Your task to perform on an android device: Check the weather Image 0: 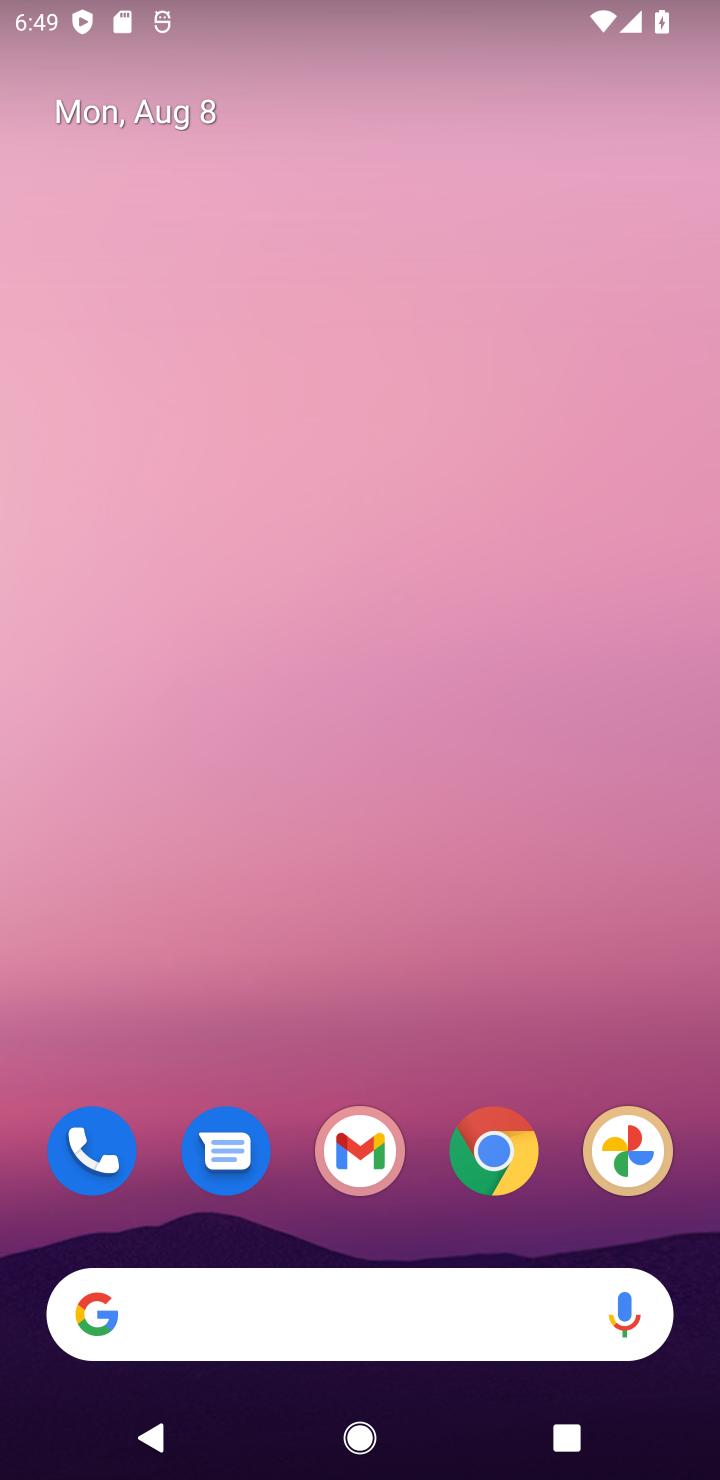
Step 0: click (312, 1304)
Your task to perform on an android device: Check the weather Image 1: 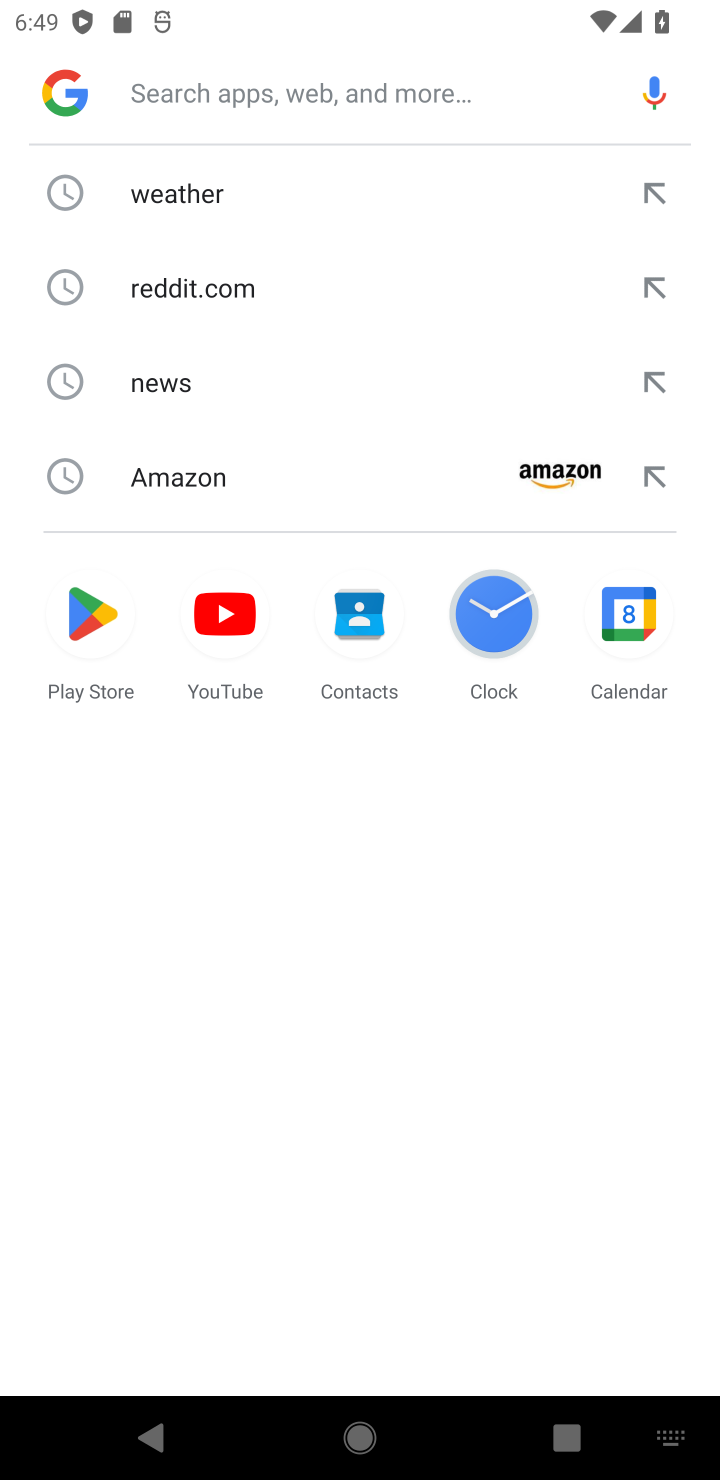
Step 1: click (315, 79)
Your task to perform on an android device: Check the weather Image 2: 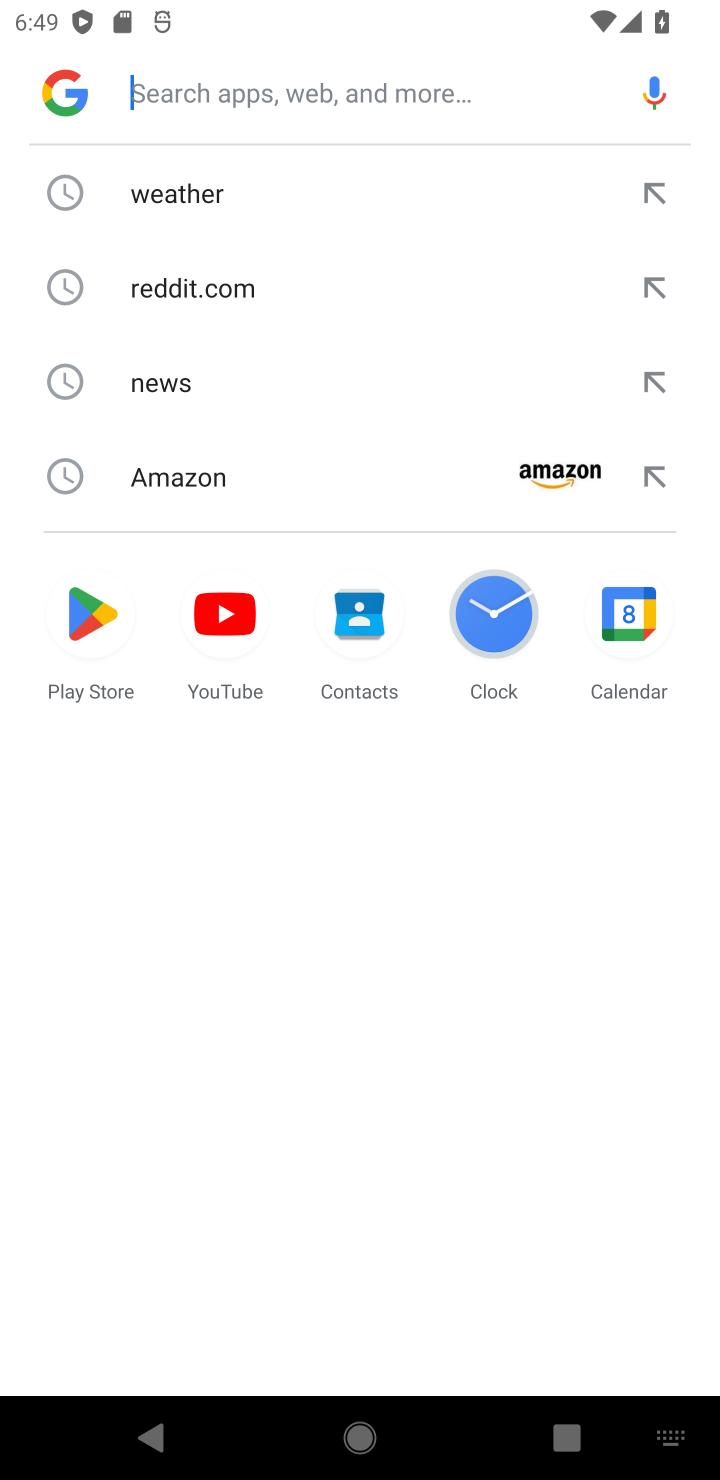
Step 2: type "weather"
Your task to perform on an android device: Check the weather Image 3: 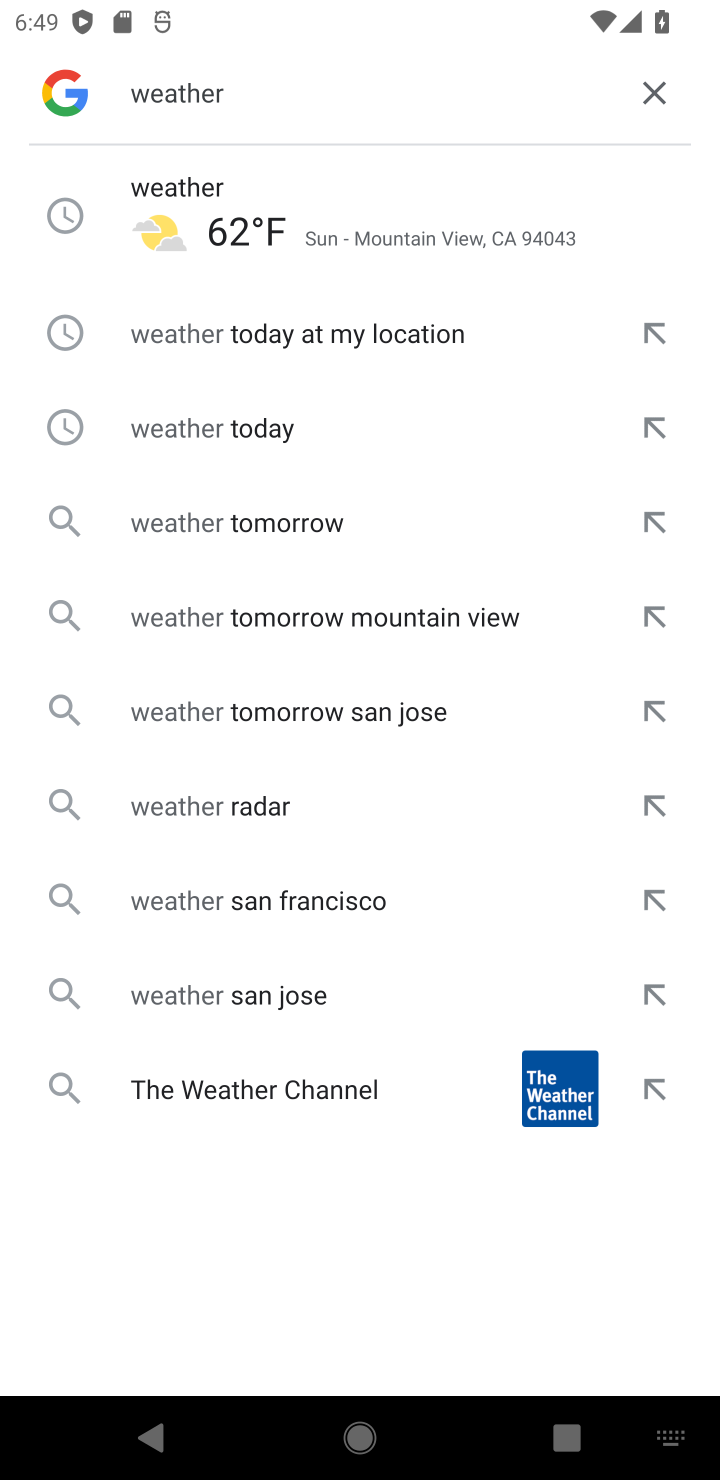
Step 3: click (369, 205)
Your task to perform on an android device: Check the weather Image 4: 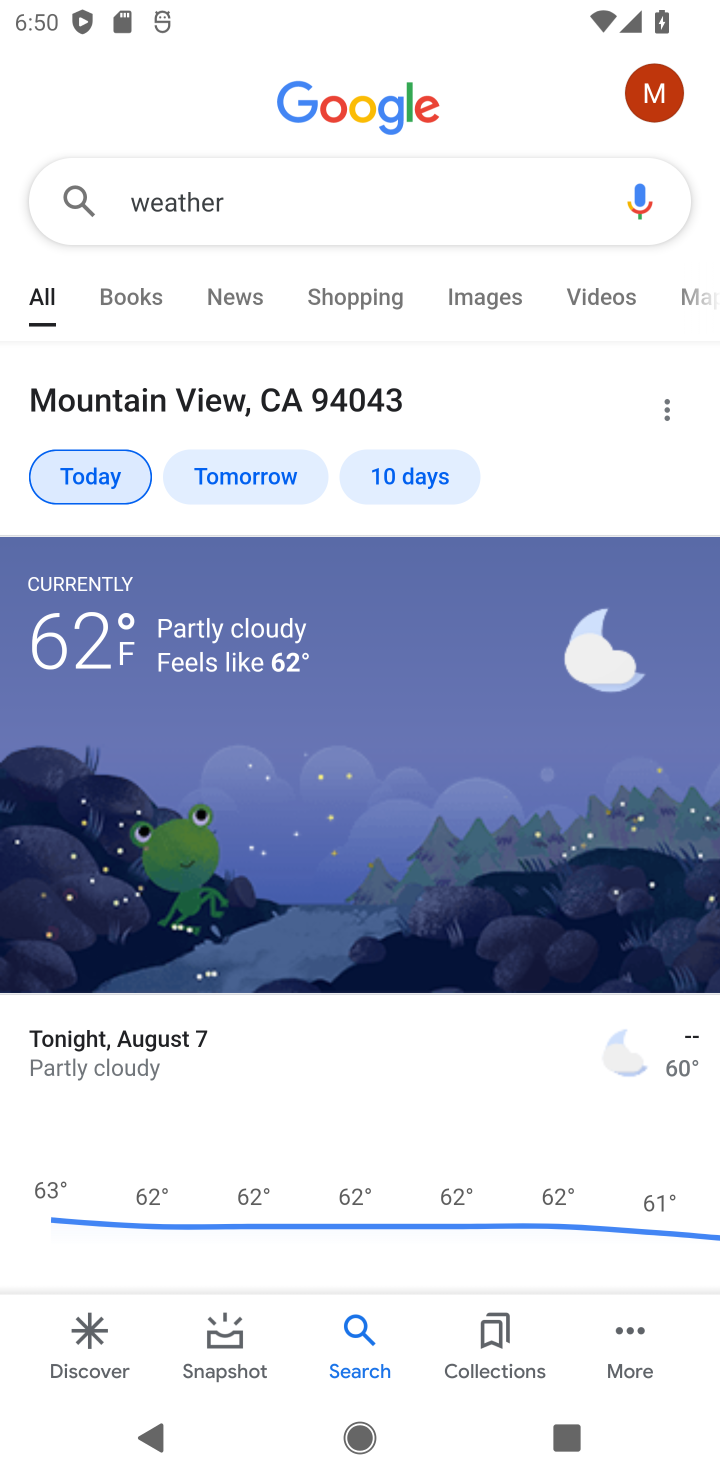
Step 4: task complete